Your task to perform on an android device: Open maps Image 0: 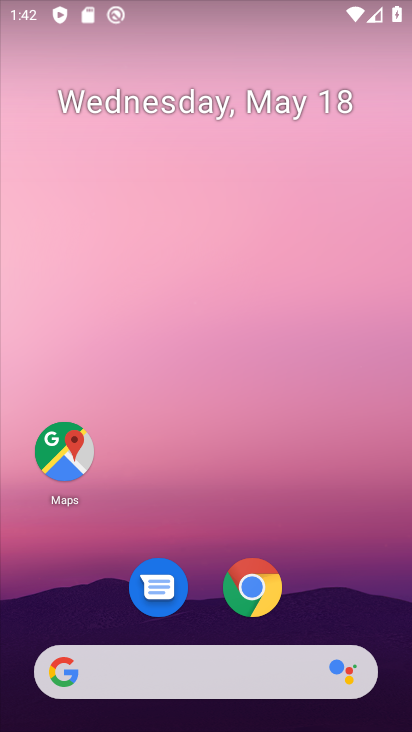
Step 0: click (61, 454)
Your task to perform on an android device: Open maps Image 1: 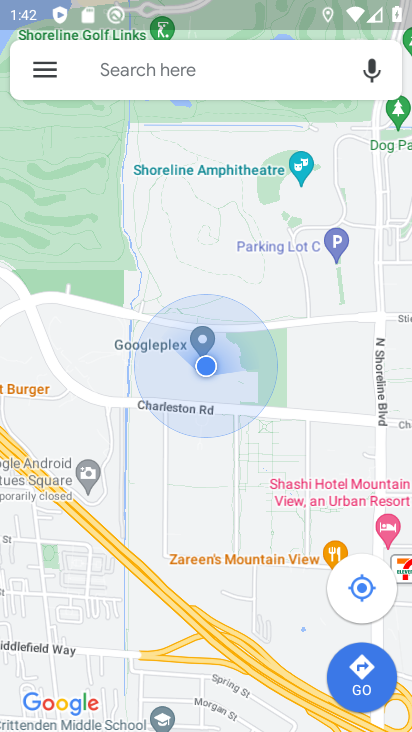
Step 1: task complete